Your task to perform on an android device: toggle data saver in the chrome app Image 0: 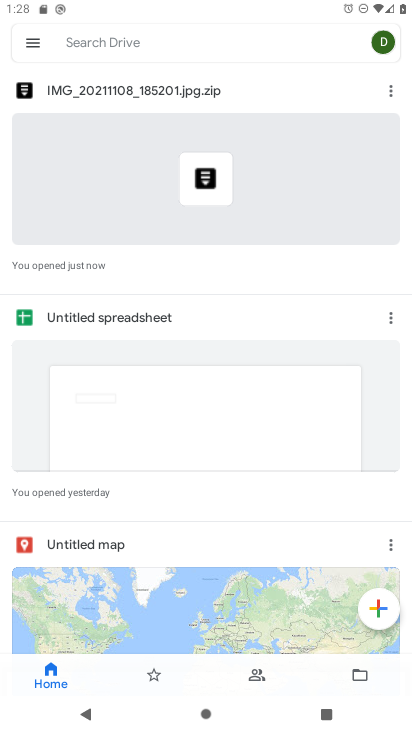
Step 0: press home button
Your task to perform on an android device: toggle data saver in the chrome app Image 1: 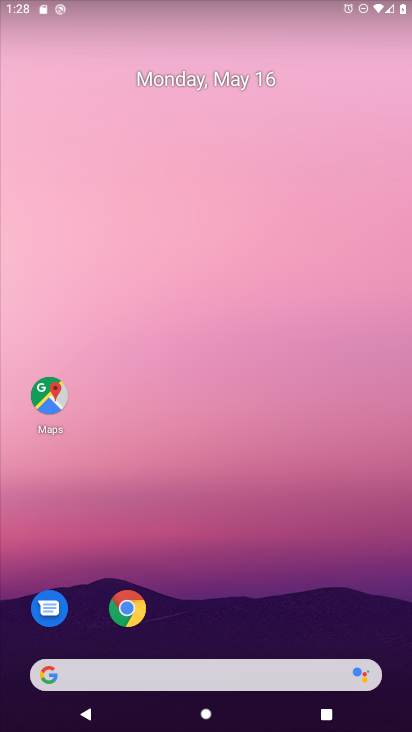
Step 1: click (124, 606)
Your task to perform on an android device: toggle data saver in the chrome app Image 2: 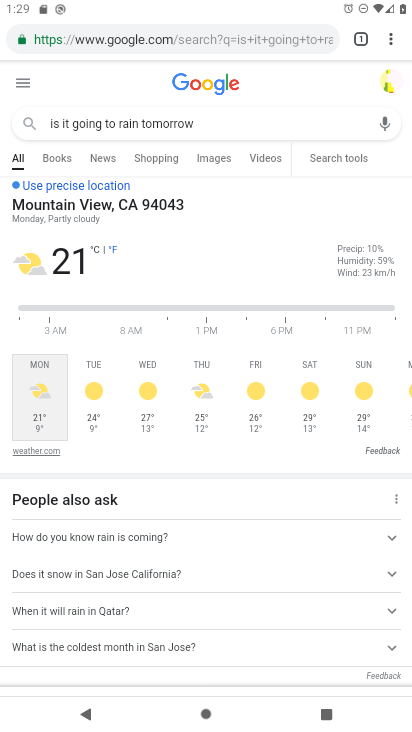
Step 2: drag from (387, 37) to (270, 445)
Your task to perform on an android device: toggle data saver in the chrome app Image 3: 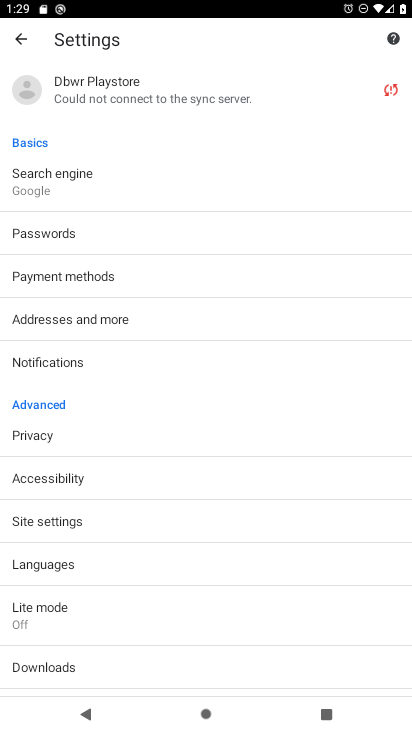
Step 3: click (107, 617)
Your task to perform on an android device: toggle data saver in the chrome app Image 4: 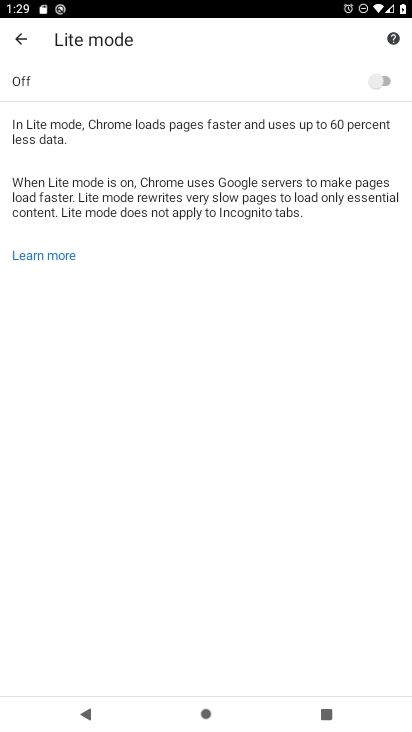
Step 4: click (384, 81)
Your task to perform on an android device: toggle data saver in the chrome app Image 5: 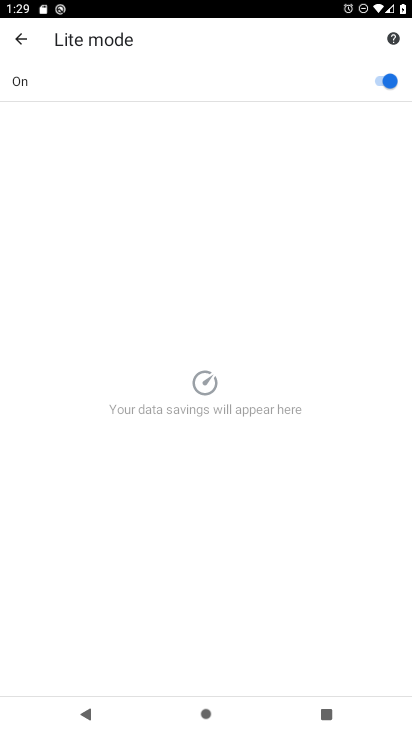
Step 5: task complete